Your task to perform on an android device: toggle airplane mode Image 0: 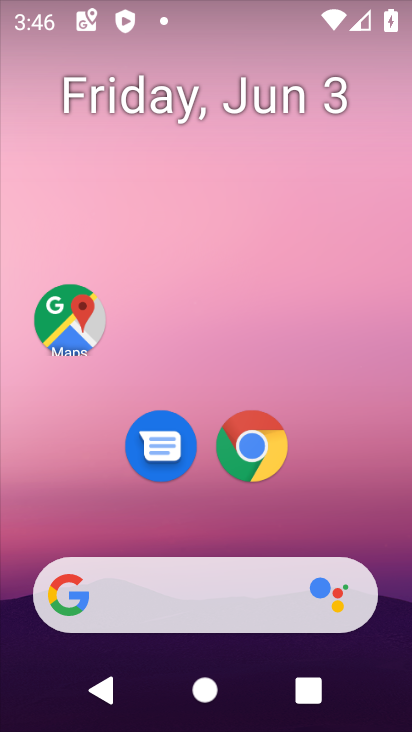
Step 0: task complete